Your task to perform on an android device: check battery use Image 0: 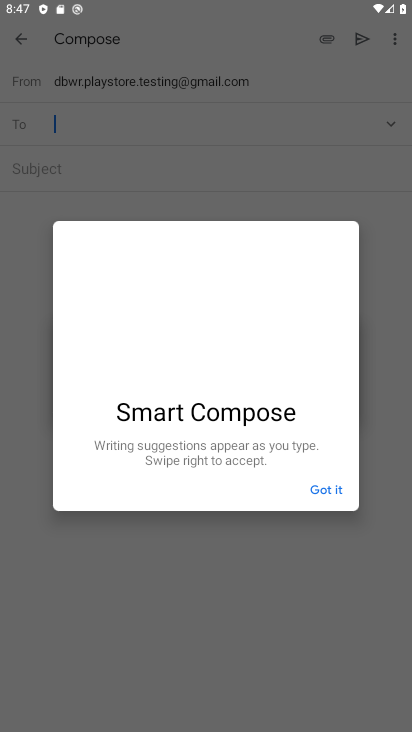
Step 0: press home button
Your task to perform on an android device: check battery use Image 1: 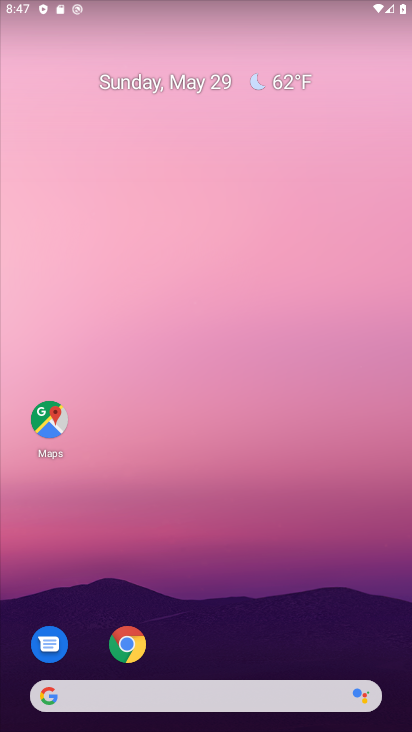
Step 1: drag from (118, 731) to (140, 5)
Your task to perform on an android device: check battery use Image 2: 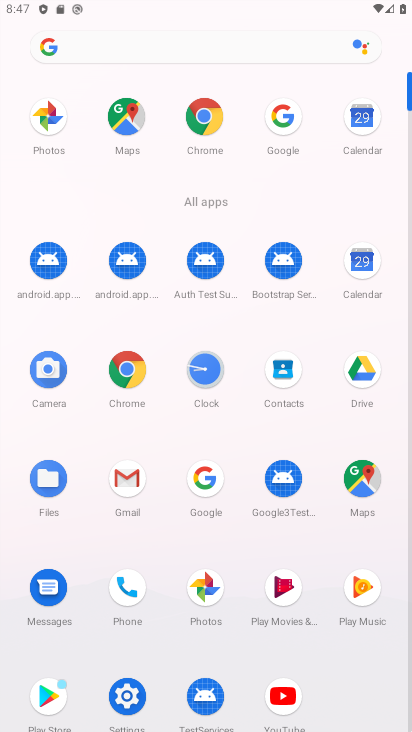
Step 2: click (127, 695)
Your task to perform on an android device: check battery use Image 3: 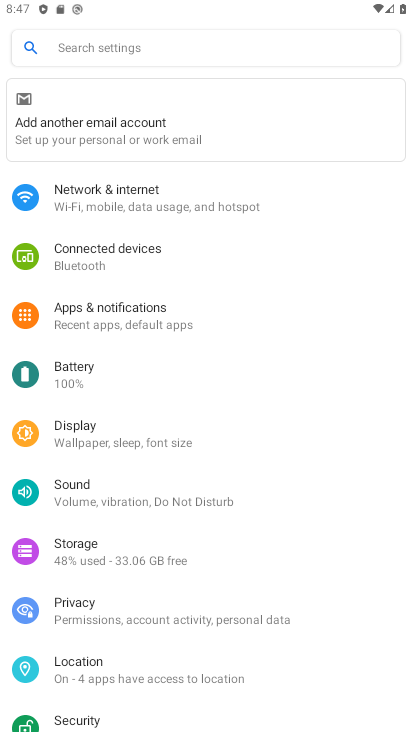
Step 3: click (64, 383)
Your task to perform on an android device: check battery use Image 4: 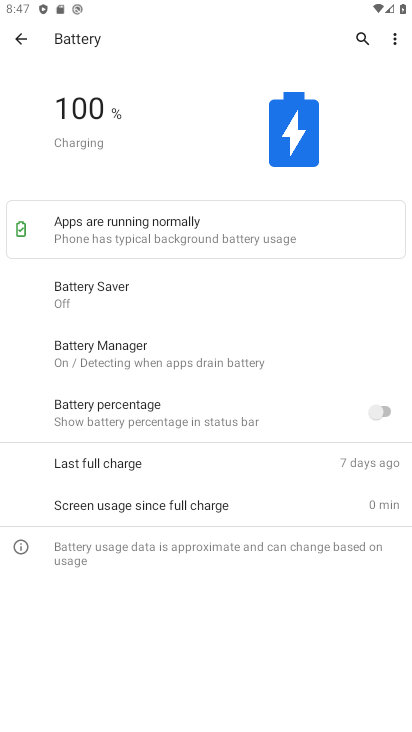
Step 4: click (393, 45)
Your task to perform on an android device: check battery use Image 5: 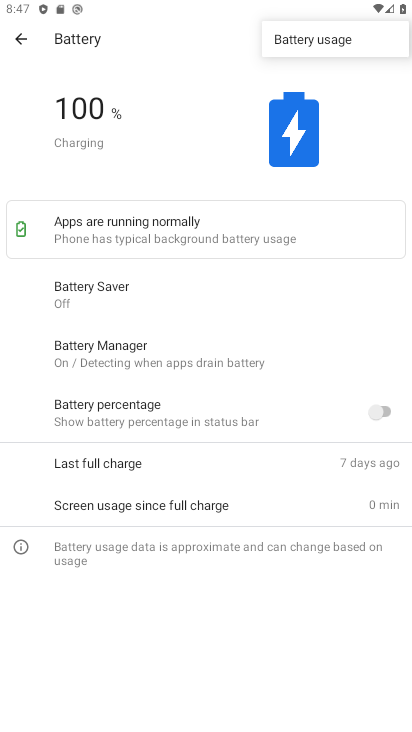
Step 5: click (324, 46)
Your task to perform on an android device: check battery use Image 6: 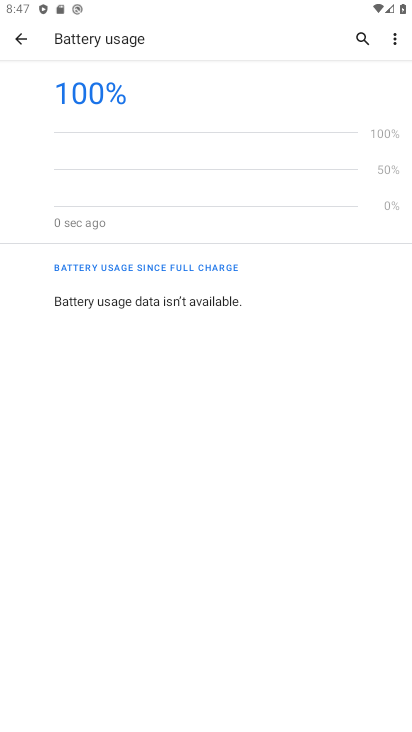
Step 6: task complete